Your task to perform on an android device: all mails in gmail Image 0: 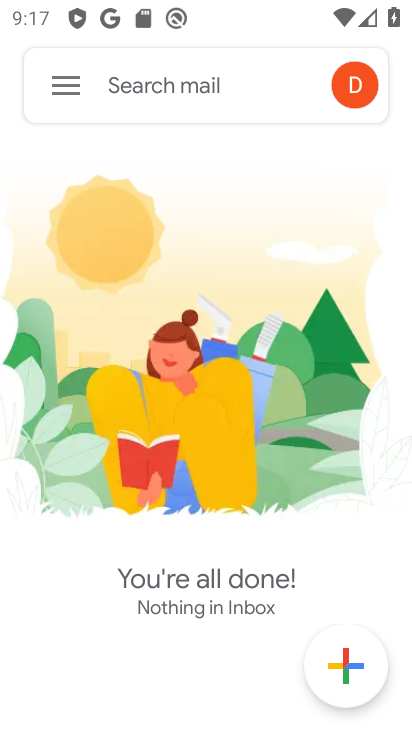
Step 0: click (60, 84)
Your task to perform on an android device: all mails in gmail Image 1: 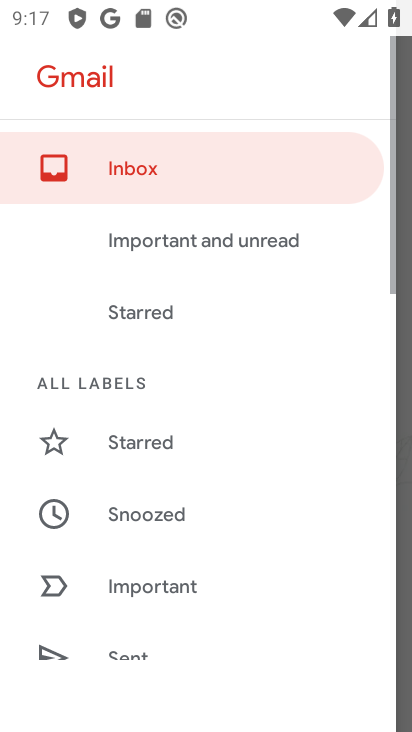
Step 1: drag from (172, 577) to (283, 42)
Your task to perform on an android device: all mails in gmail Image 2: 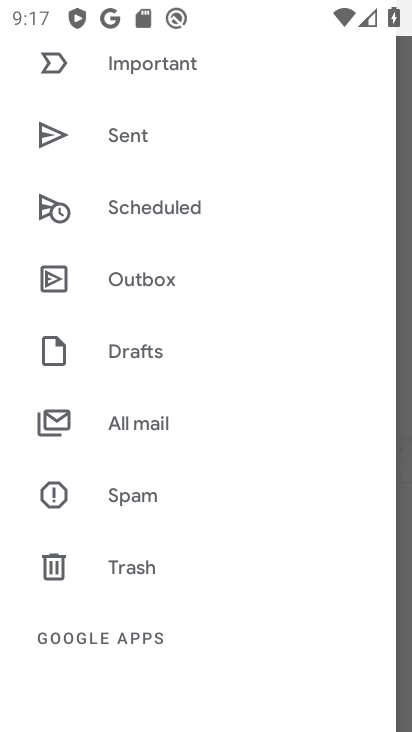
Step 2: click (135, 431)
Your task to perform on an android device: all mails in gmail Image 3: 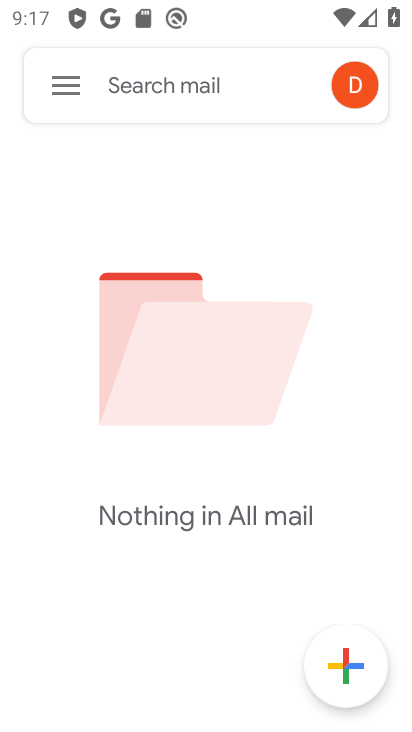
Step 3: task complete